Your task to perform on an android device: Open Youtube and go to the subscriptions tab Image 0: 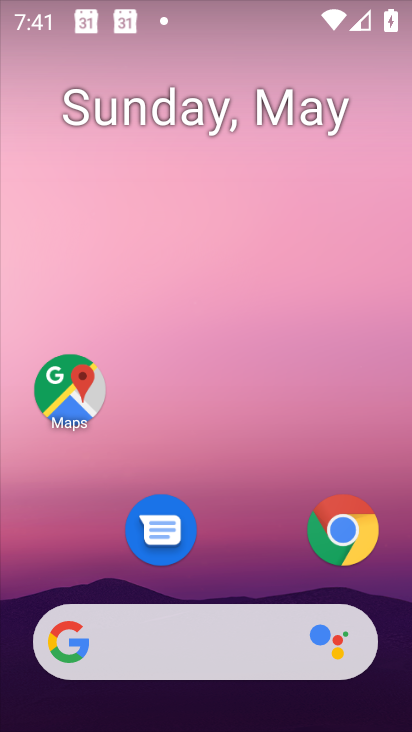
Step 0: drag from (218, 560) to (357, 491)
Your task to perform on an android device: Open Youtube and go to the subscriptions tab Image 1: 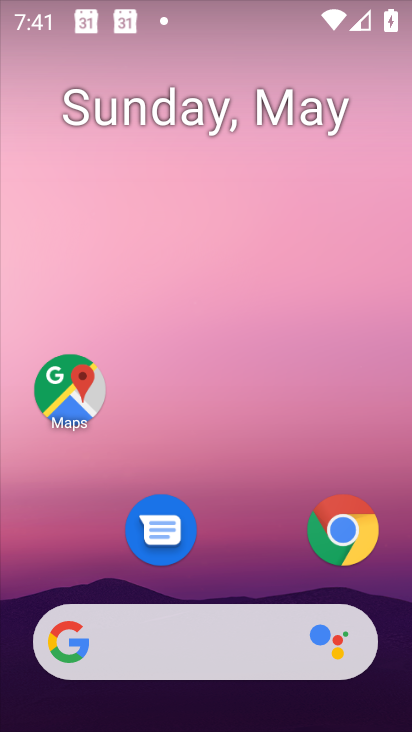
Step 1: drag from (212, 585) to (215, 3)
Your task to perform on an android device: Open Youtube and go to the subscriptions tab Image 2: 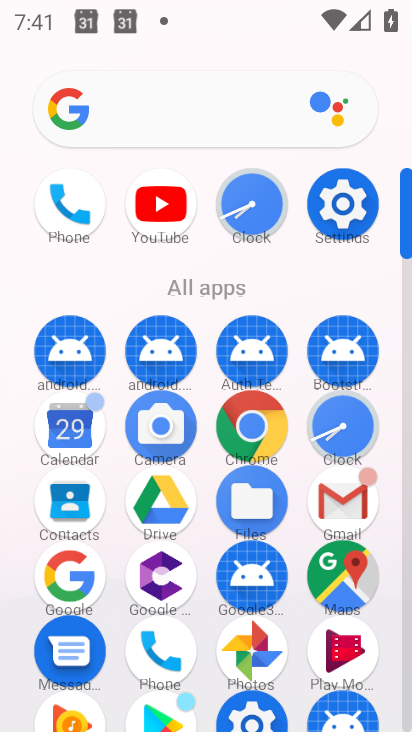
Step 2: click (158, 219)
Your task to perform on an android device: Open Youtube and go to the subscriptions tab Image 3: 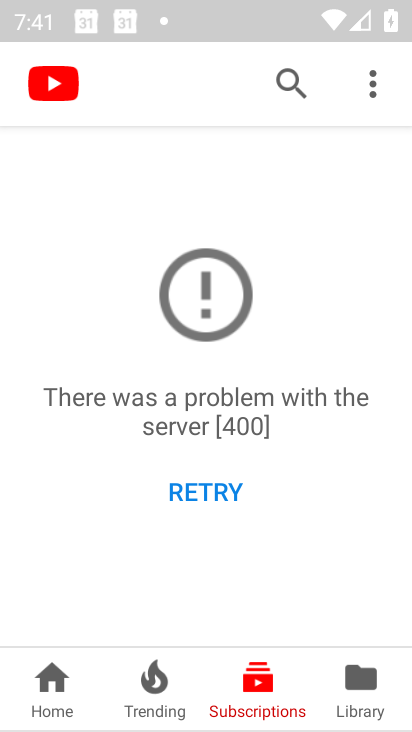
Step 3: click (258, 693)
Your task to perform on an android device: Open Youtube and go to the subscriptions tab Image 4: 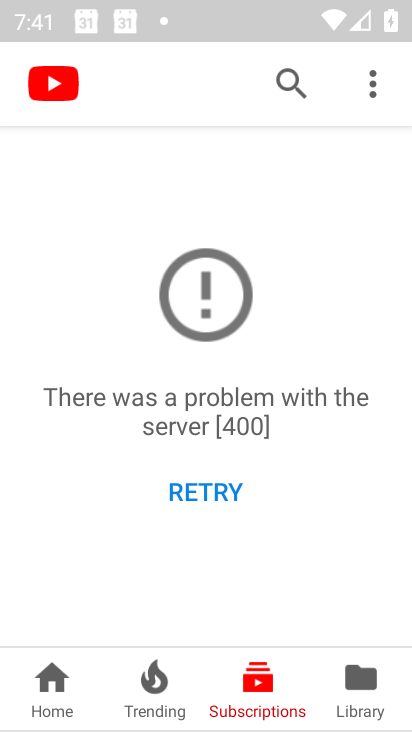
Step 4: task complete